Your task to perform on an android device: toggle airplane mode Image 0: 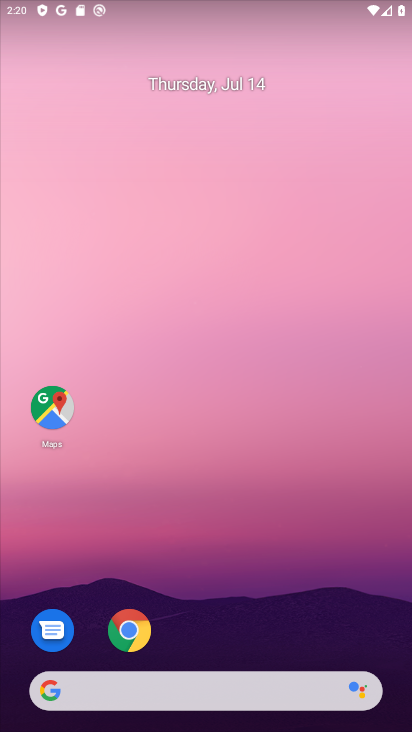
Step 0: drag from (205, 668) to (277, 219)
Your task to perform on an android device: toggle airplane mode Image 1: 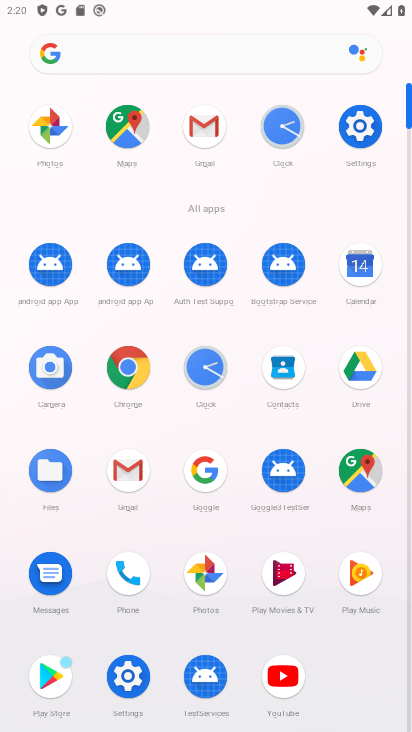
Step 1: click (123, 678)
Your task to perform on an android device: toggle airplane mode Image 2: 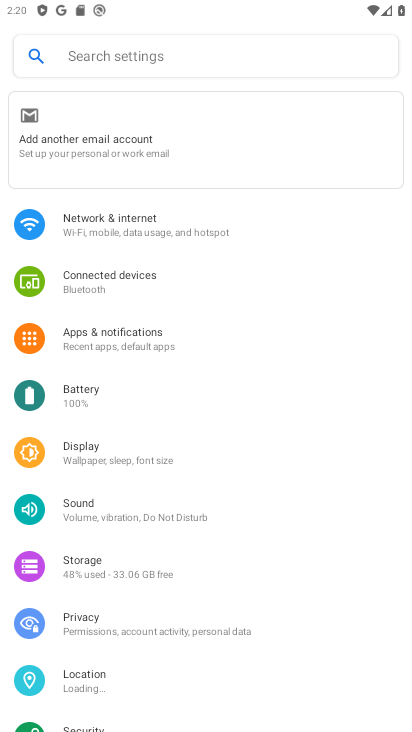
Step 2: click (194, 228)
Your task to perform on an android device: toggle airplane mode Image 3: 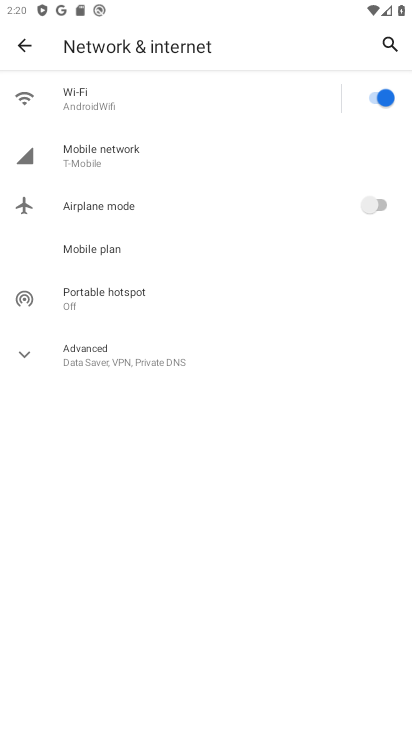
Step 3: click (395, 200)
Your task to perform on an android device: toggle airplane mode Image 4: 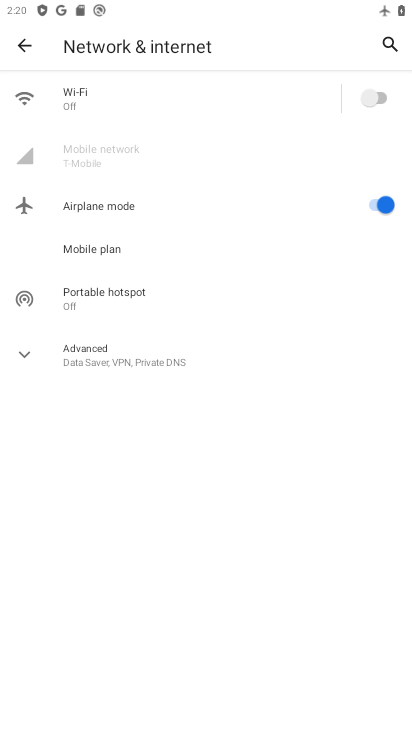
Step 4: task complete